Your task to perform on an android device: add a contact in the contacts app Image 0: 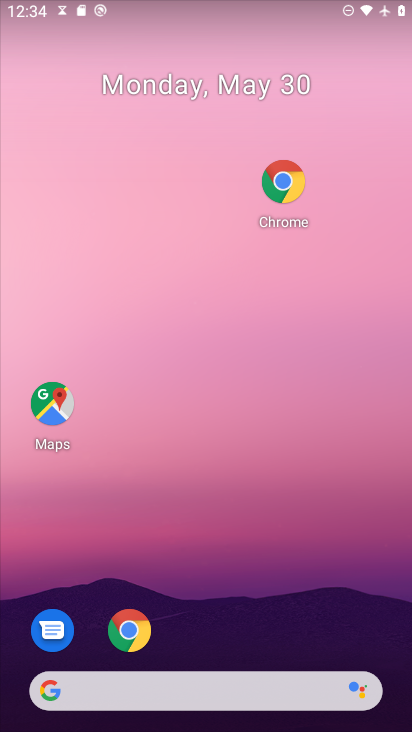
Step 0: drag from (207, 634) to (165, 189)
Your task to perform on an android device: add a contact in the contacts app Image 1: 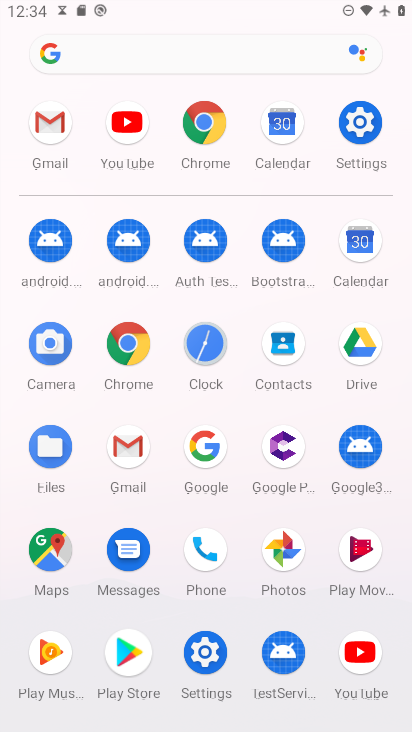
Step 1: click (284, 349)
Your task to perform on an android device: add a contact in the contacts app Image 2: 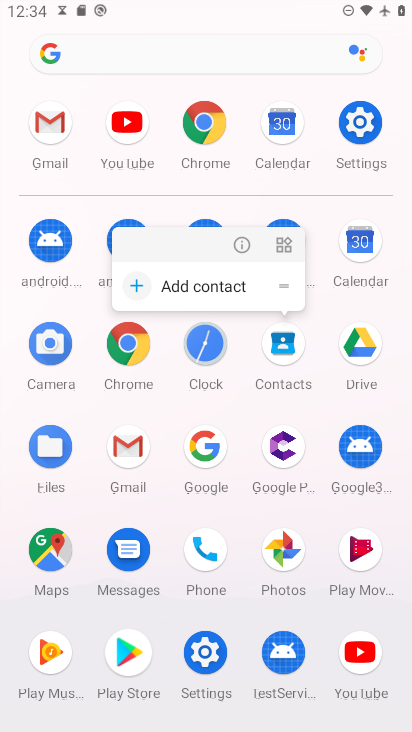
Step 2: click (199, 281)
Your task to perform on an android device: add a contact in the contacts app Image 3: 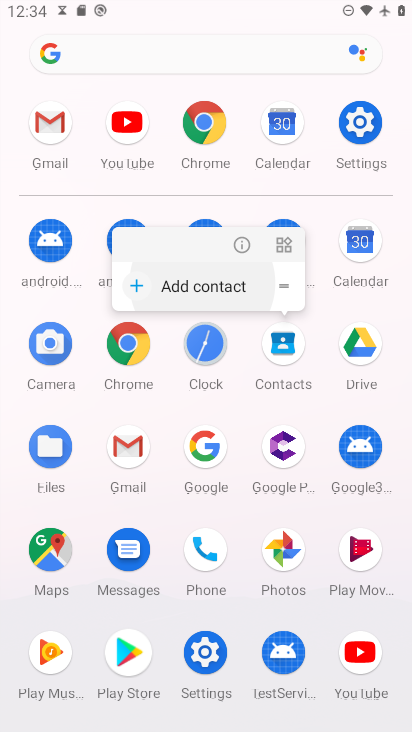
Step 3: click (199, 281)
Your task to perform on an android device: add a contact in the contacts app Image 4: 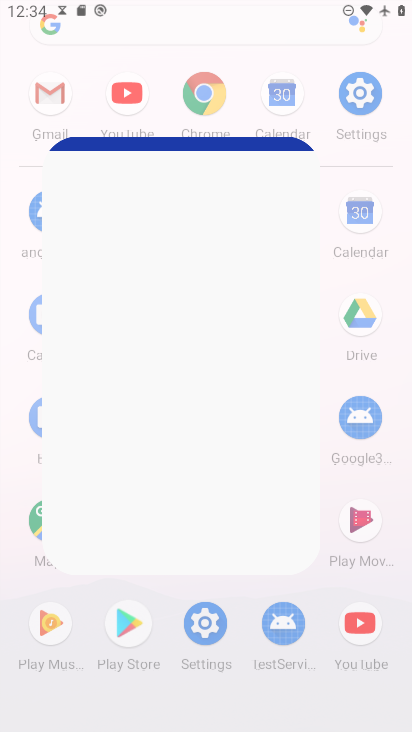
Step 4: click (199, 281)
Your task to perform on an android device: add a contact in the contacts app Image 5: 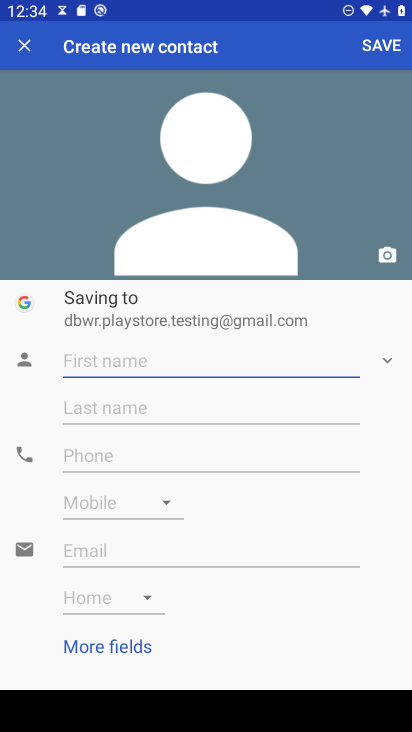
Step 5: type "kudhvkdsuhkjs"
Your task to perform on an android device: add a contact in the contacts app Image 6: 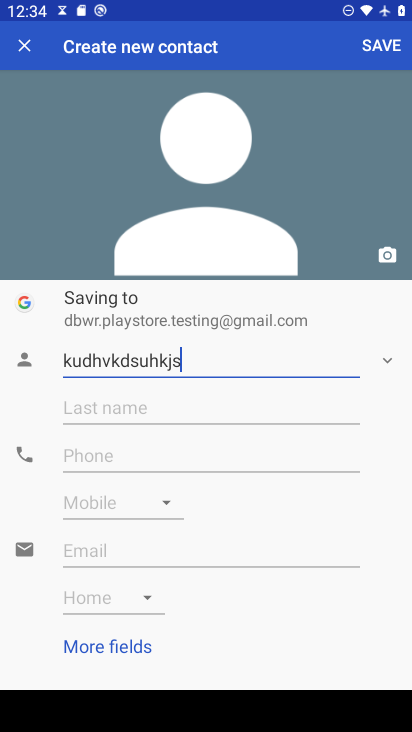
Step 6: click (70, 455)
Your task to perform on an android device: add a contact in the contacts app Image 7: 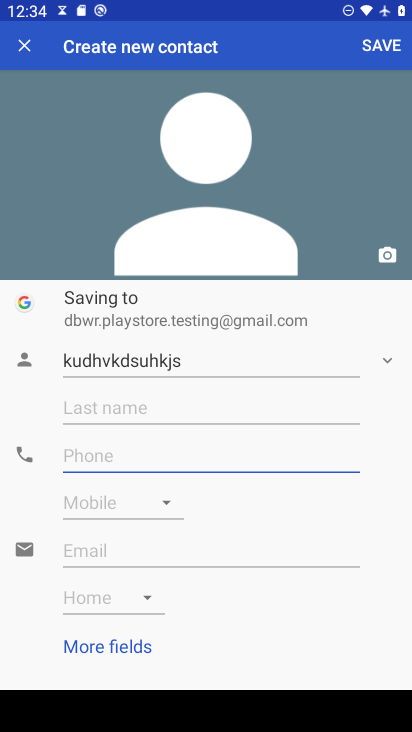
Step 7: type "989753989983"
Your task to perform on an android device: add a contact in the contacts app Image 8: 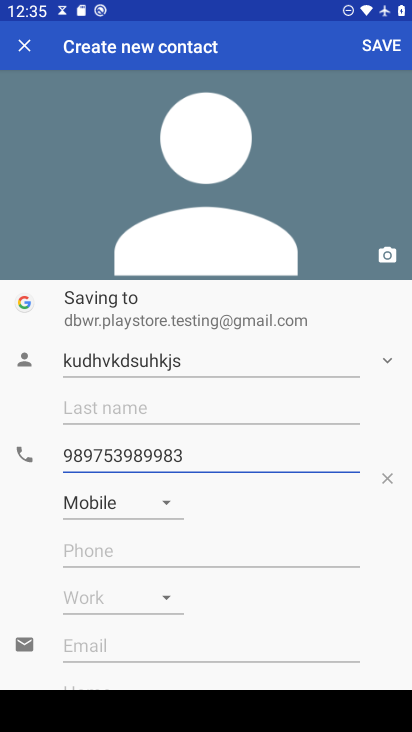
Step 8: click (392, 54)
Your task to perform on an android device: add a contact in the contacts app Image 9: 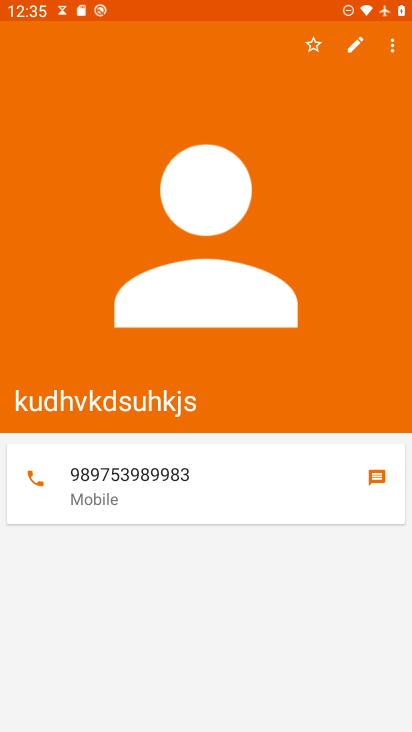
Step 9: task complete